Your task to perform on an android device: Open ESPN.com Image 0: 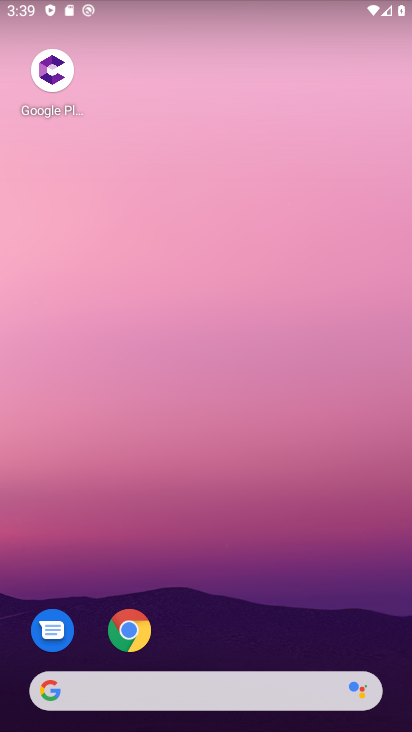
Step 0: drag from (228, 234) to (222, 148)
Your task to perform on an android device: Open ESPN.com Image 1: 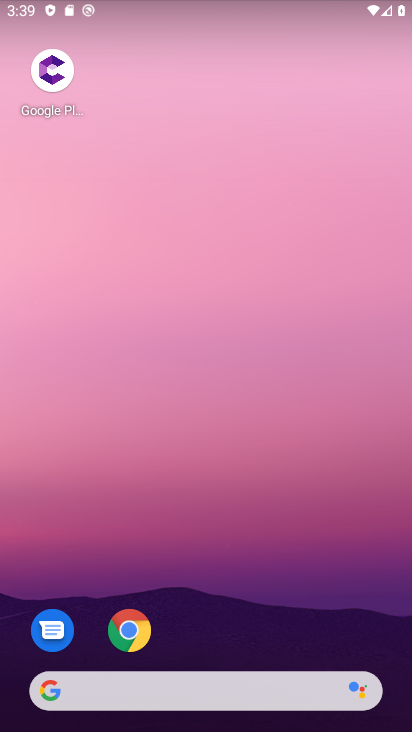
Step 1: click (222, 144)
Your task to perform on an android device: Open ESPN.com Image 2: 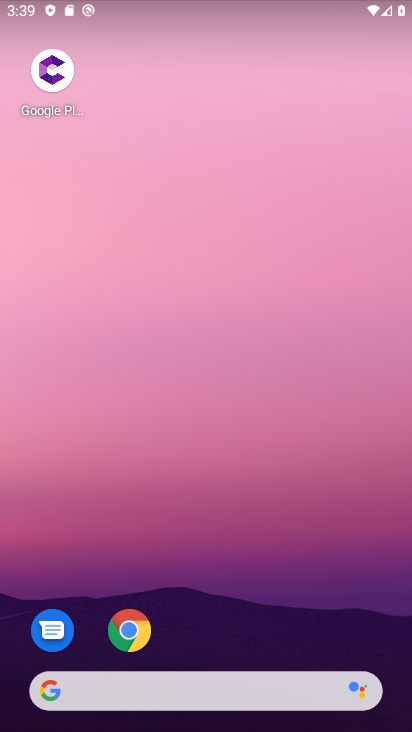
Step 2: click (246, 171)
Your task to perform on an android device: Open ESPN.com Image 3: 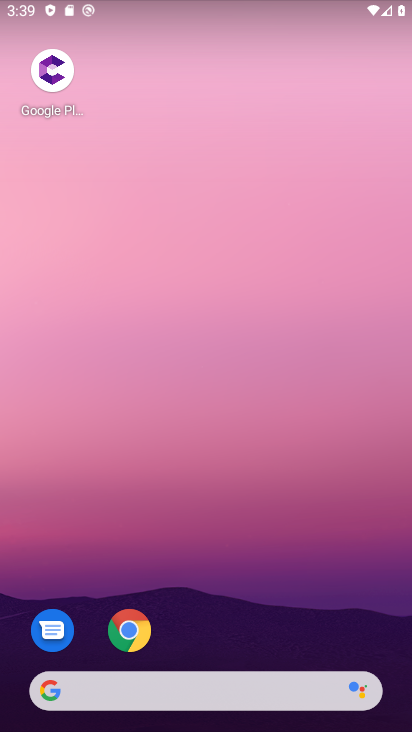
Step 3: drag from (266, 664) to (197, 158)
Your task to perform on an android device: Open ESPN.com Image 4: 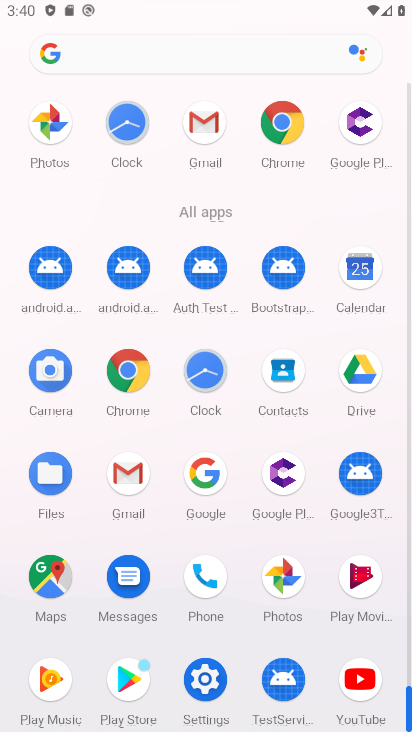
Step 4: click (275, 116)
Your task to perform on an android device: Open ESPN.com Image 5: 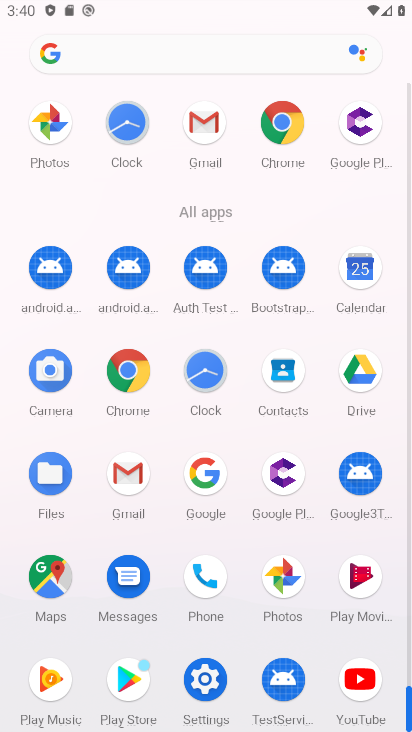
Step 5: click (275, 115)
Your task to perform on an android device: Open ESPN.com Image 6: 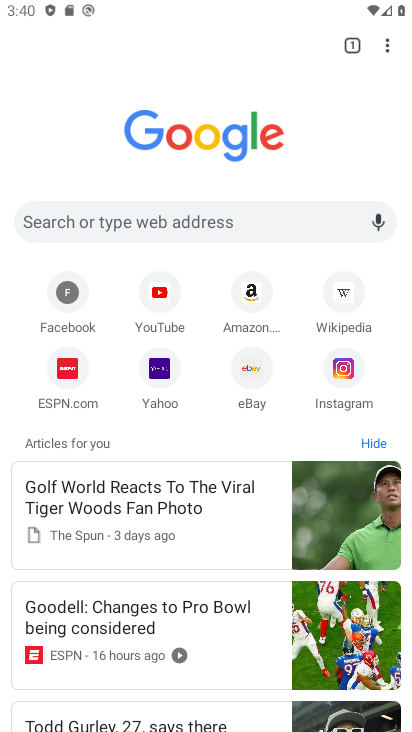
Step 6: click (65, 376)
Your task to perform on an android device: Open ESPN.com Image 7: 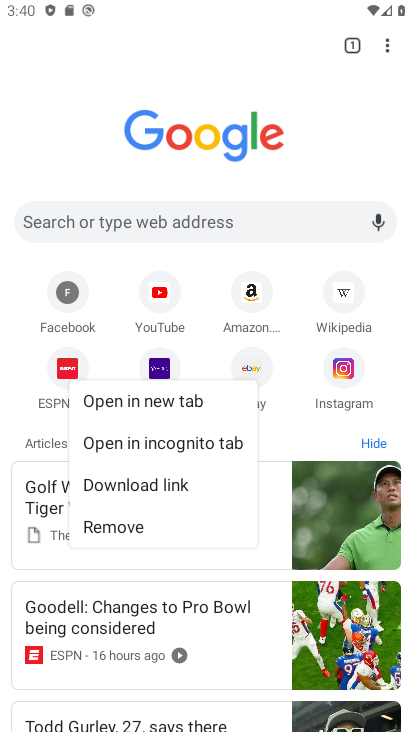
Step 7: click (68, 373)
Your task to perform on an android device: Open ESPN.com Image 8: 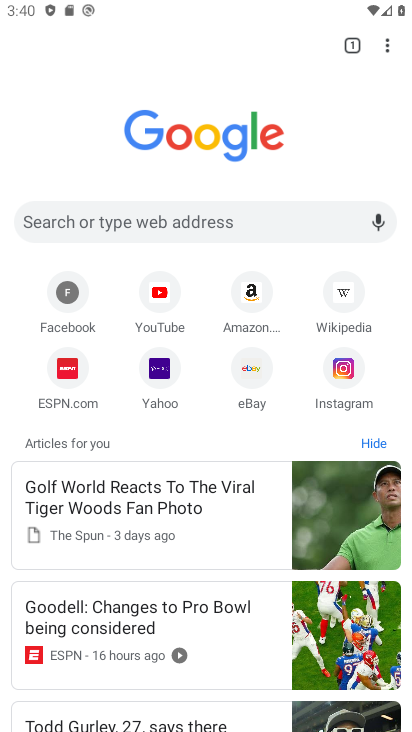
Step 8: click (64, 366)
Your task to perform on an android device: Open ESPN.com Image 9: 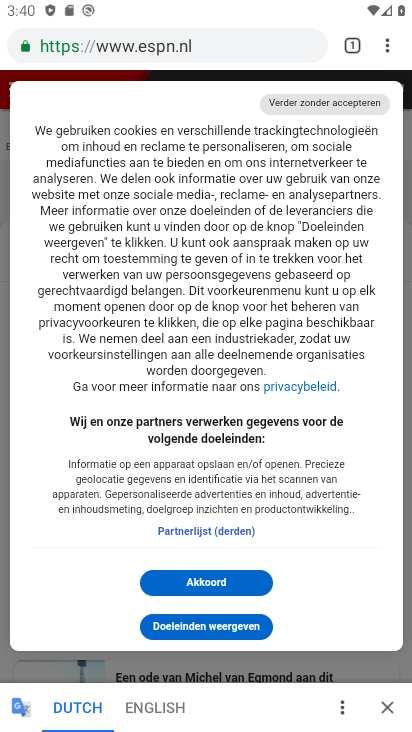
Step 9: task complete